Your task to perform on an android device: turn off priority inbox in the gmail app Image 0: 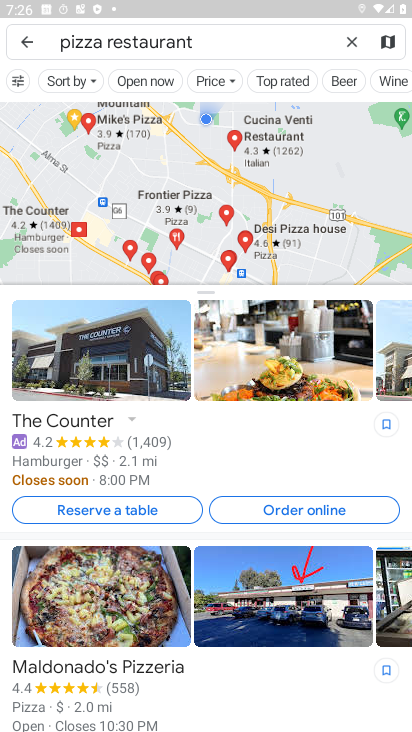
Step 0: press home button
Your task to perform on an android device: turn off priority inbox in the gmail app Image 1: 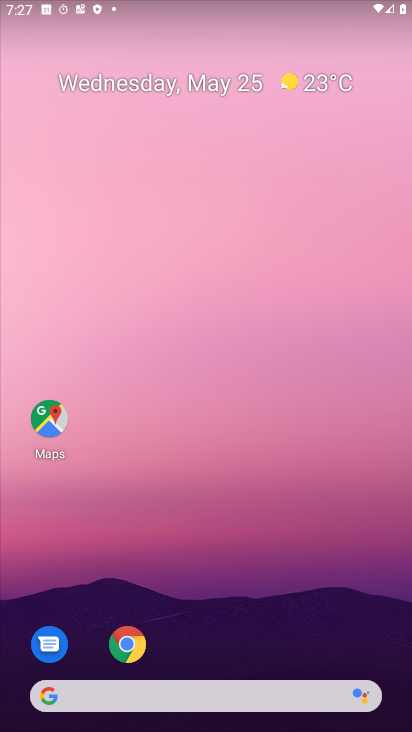
Step 1: drag from (212, 707) to (171, 3)
Your task to perform on an android device: turn off priority inbox in the gmail app Image 2: 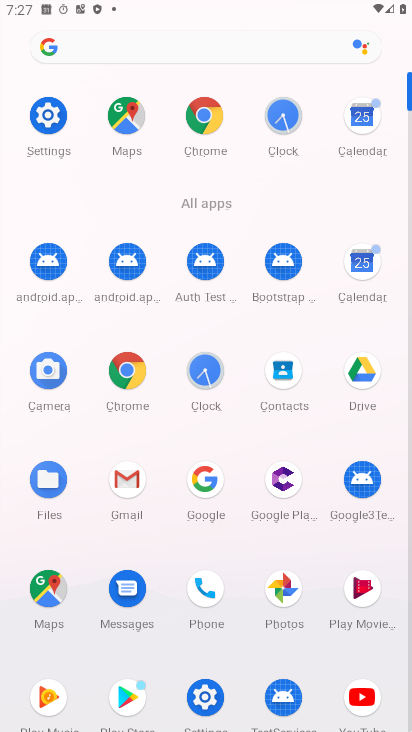
Step 2: click (129, 489)
Your task to perform on an android device: turn off priority inbox in the gmail app Image 3: 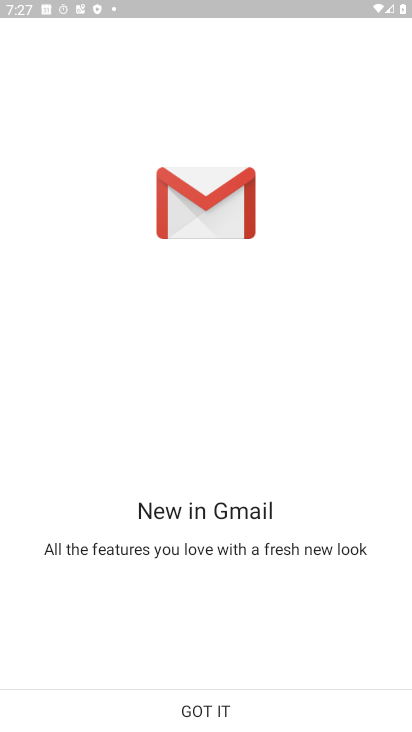
Step 3: click (146, 715)
Your task to perform on an android device: turn off priority inbox in the gmail app Image 4: 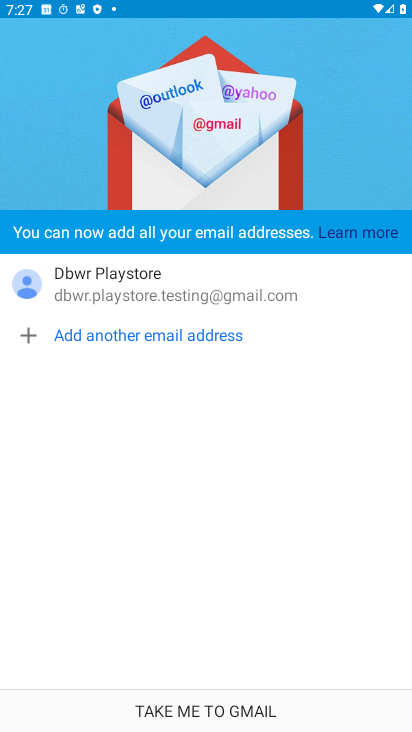
Step 4: click (249, 725)
Your task to perform on an android device: turn off priority inbox in the gmail app Image 5: 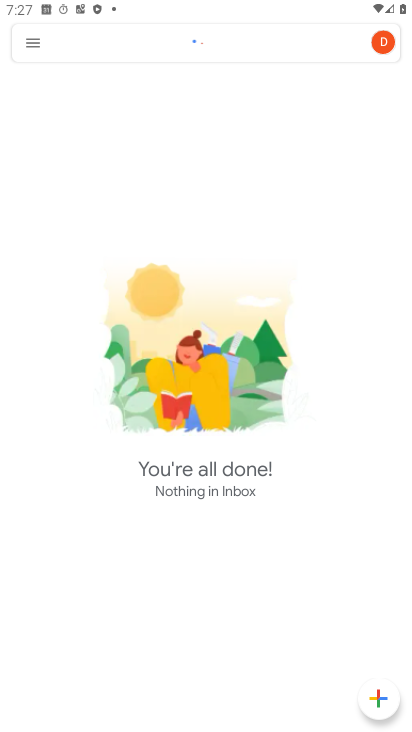
Step 5: click (41, 42)
Your task to perform on an android device: turn off priority inbox in the gmail app Image 6: 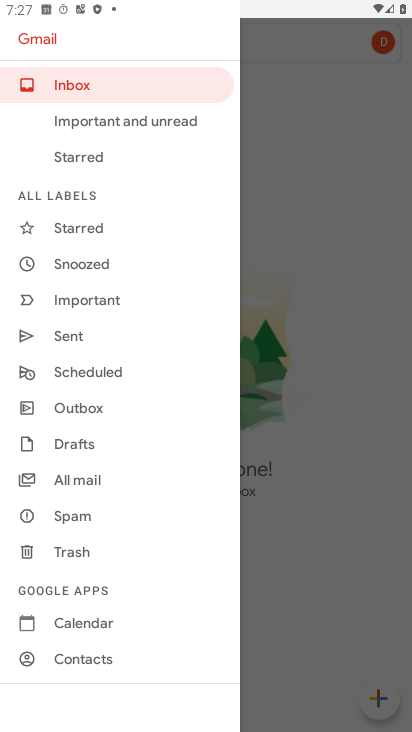
Step 6: drag from (106, 659) to (122, 581)
Your task to perform on an android device: turn off priority inbox in the gmail app Image 7: 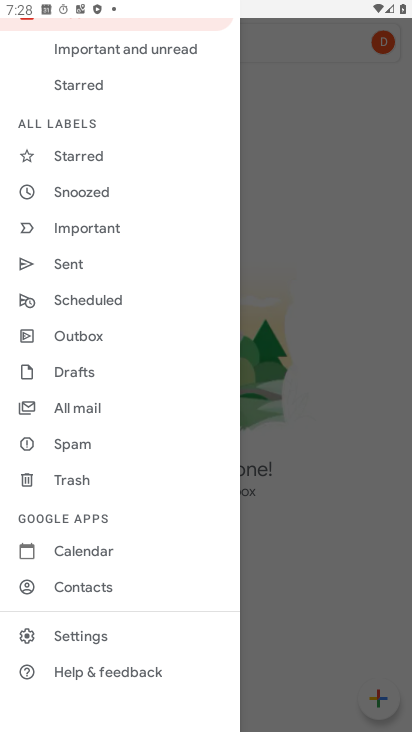
Step 7: click (86, 637)
Your task to perform on an android device: turn off priority inbox in the gmail app Image 8: 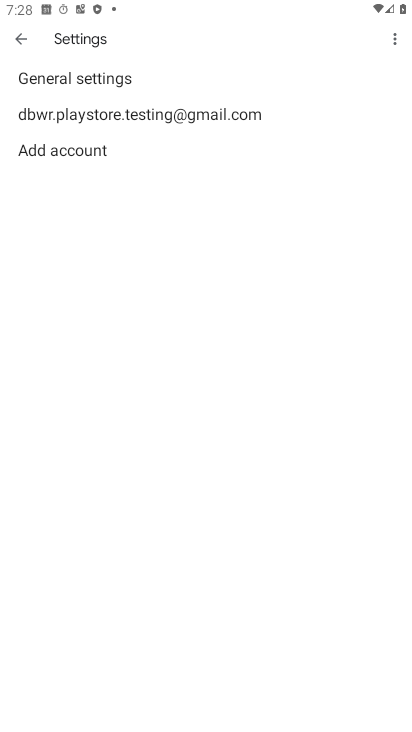
Step 8: click (133, 106)
Your task to perform on an android device: turn off priority inbox in the gmail app Image 9: 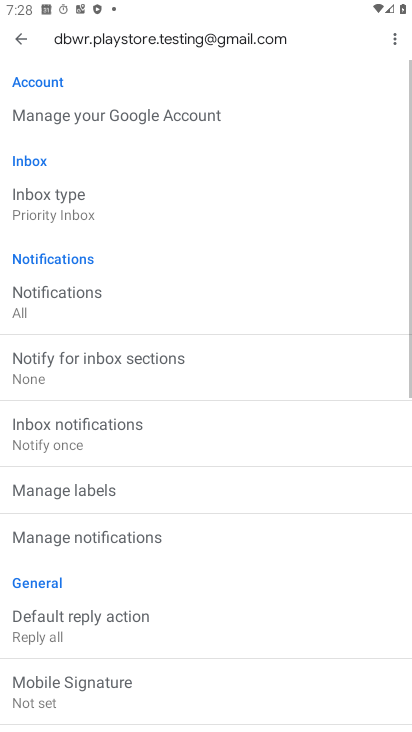
Step 9: click (113, 211)
Your task to perform on an android device: turn off priority inbox in the gmail app Image 10: 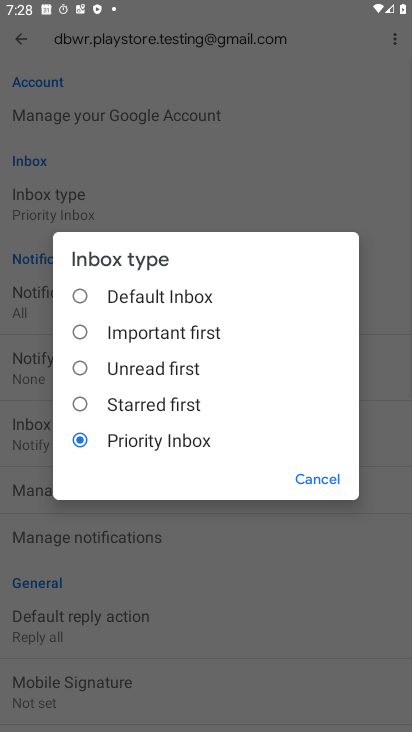
Step 10: click (96, 286)
Your task to perform on an android device: turn off priority inbox in the gmail app Image 11: 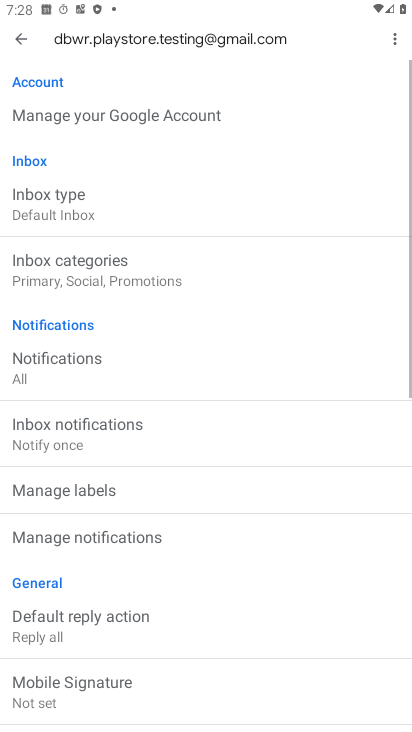
Step 11: task complete